Your task to perform on an android device: set the stopwatch Image 0: 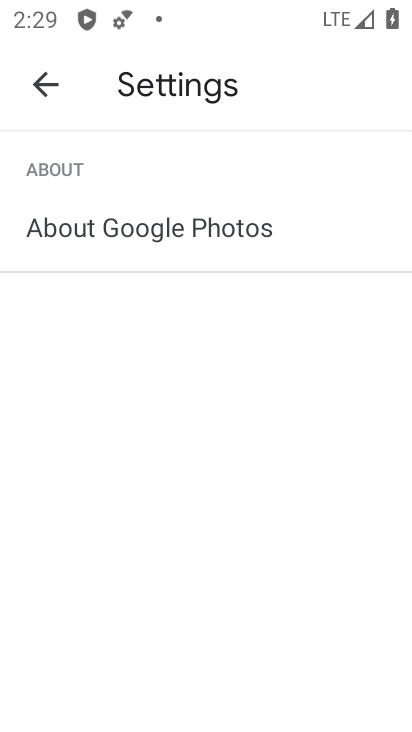
Step 0: press home button
Your task to perform on an android device: set the stopwatch Image 1: 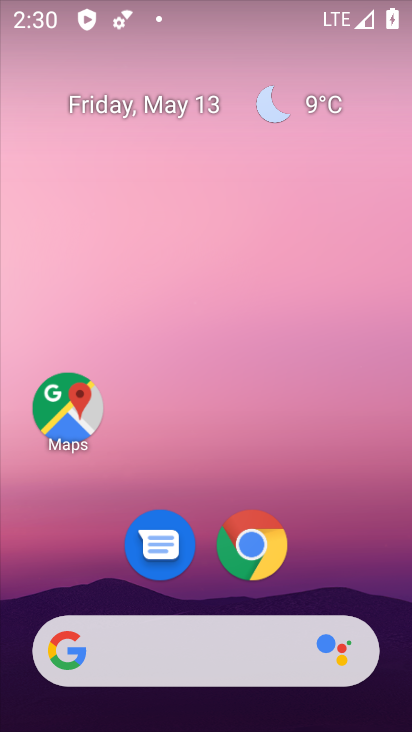
Step 1: drag from (310, 559) to (312, 77)
Your task to perform on an android device: set the stopwatch Image 2: 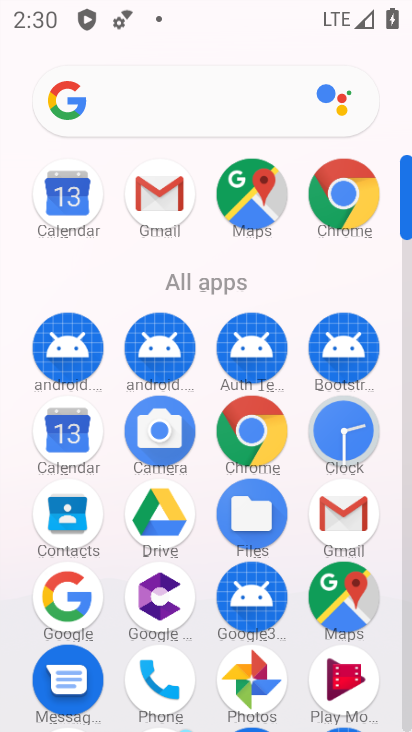
Step 2: click (327, 425)
Your task to perform on an android device: set the stopwatch Image 3: 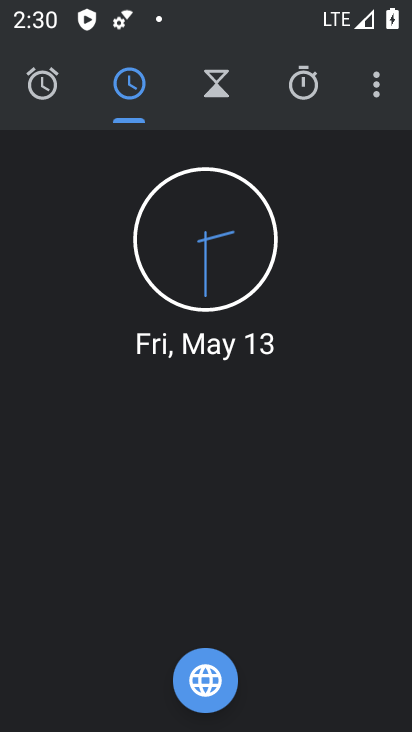
Step 3: click (308, 80)
Your task to perform on an android device: set the stopwatch Image 4: 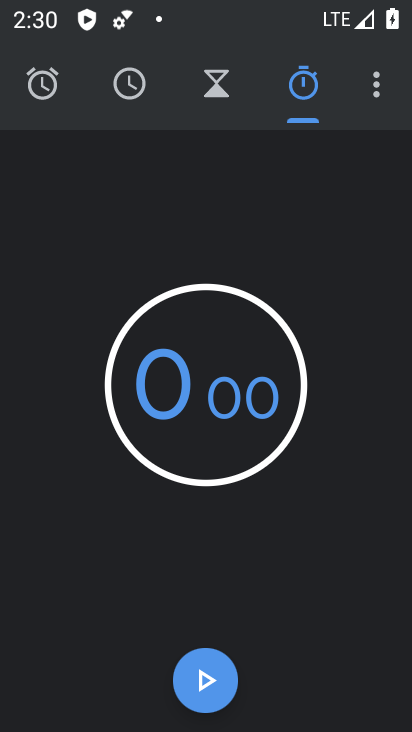
Step 4: click (209, 675)
Your task to perform on an android device: set the stopwatch Image 5: 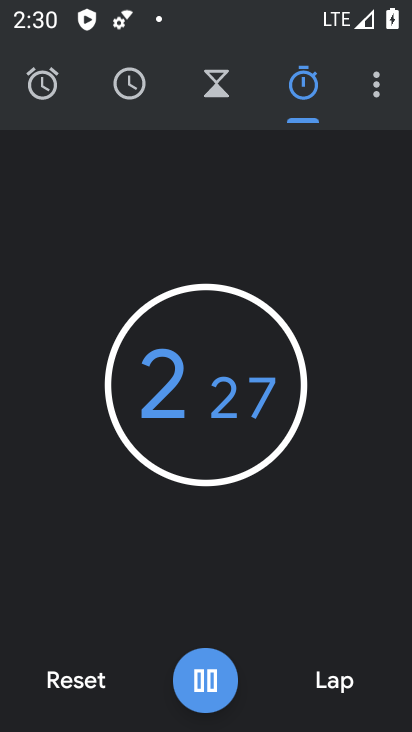
Step 5: task complete